Your task to perform on an android device: Go to Reddit.com Image 0: 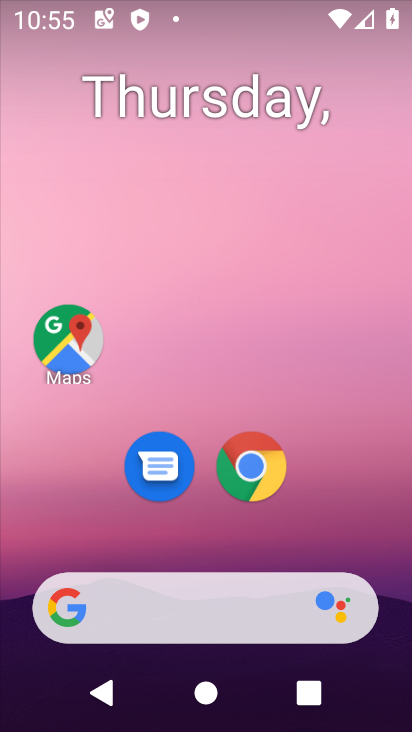
Step 0: drag from (231, 540) to (185, 3)
Your task to perform on an android device: Go to Reddit.com Image 1: 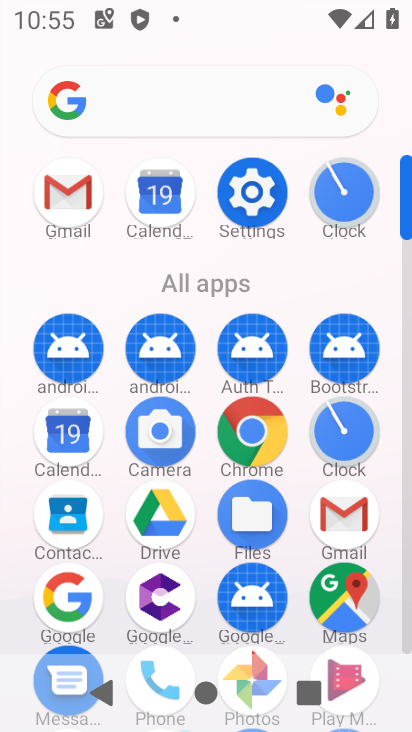
Step 1: click (233, 442)
Your task to perform on an android device: Go to Reddit.com Image 2: 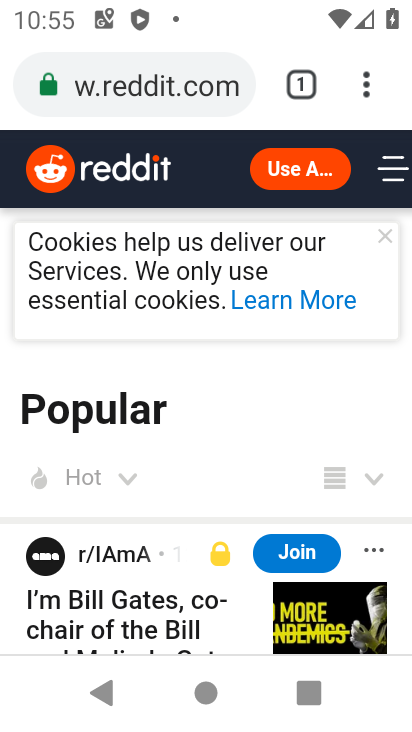
Step 2: task complete